Your task to perform on an android device: toggle wifi Image 0: 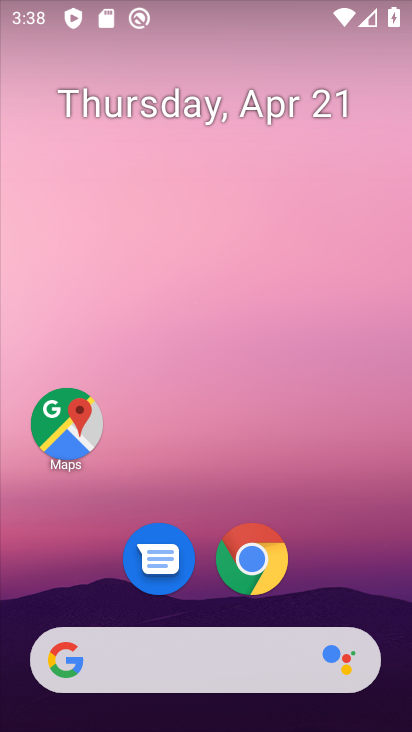
Step 0: drag from (214, 592) to (327, 71)
Your task to perform on an android device: toggle wifi Image 1: 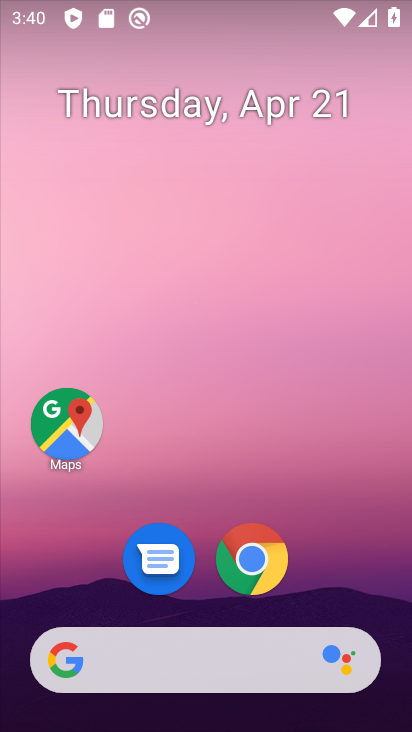
Step 1: drag from (228, 588) to (228, 13)
Your task to perform on an android device: toggle wifi Image 2: 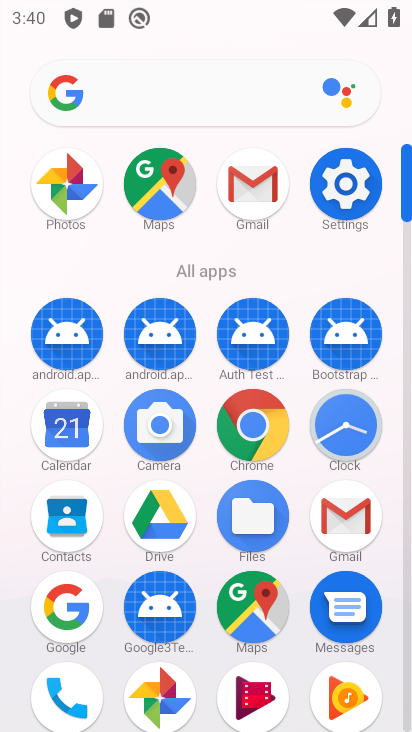
Step 2: click (355, 184)
Your task to perform on an android device: toggle wifi Image 3: 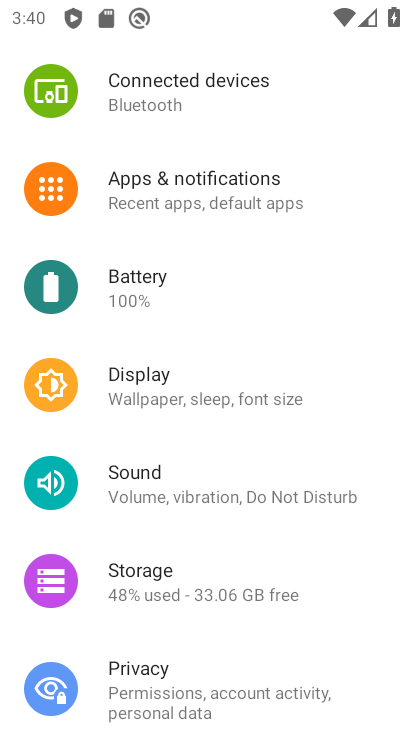
Step 3: drag from (185, 144) to (181, 484)
Your task to perform on an android device: toggle wifi Image 4: 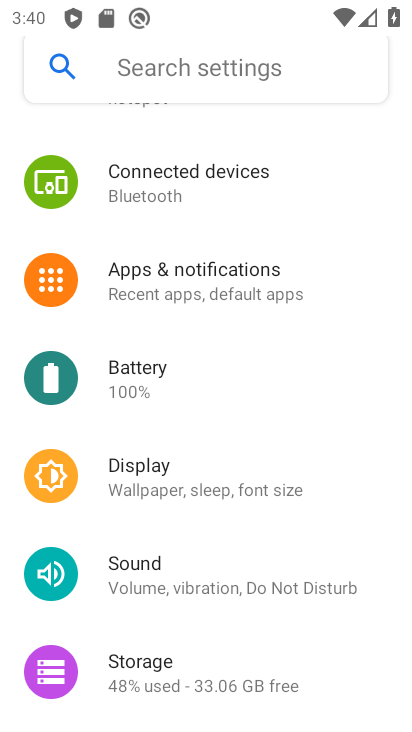
Step 4: drag from (205, 254) to (254, 595)
Your task to perform on an android device: toggle wifi Image 5: 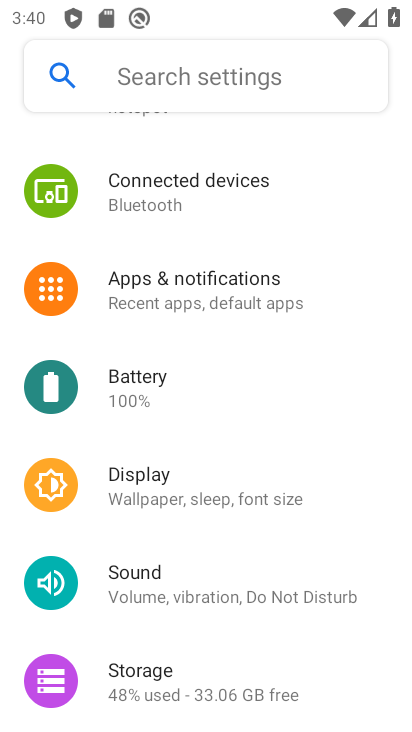
Step 5: drag from (202, 192) to (237, 646)
Your task to perform on an android device: toggle wifi Image 6: 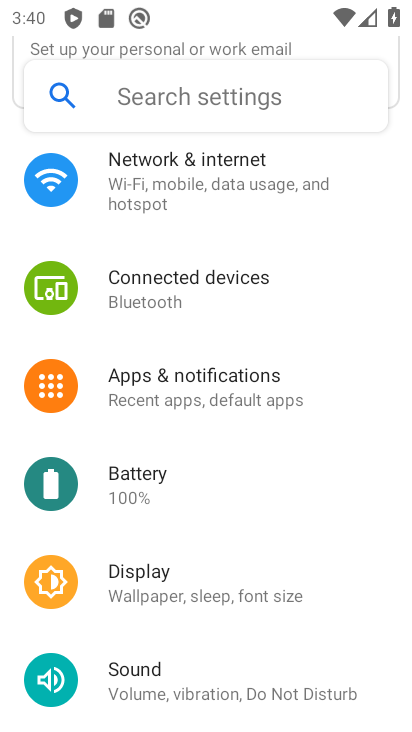
Step 6: click (246, 182)
Your task to perform on an android device: toggle wifi Image 7: 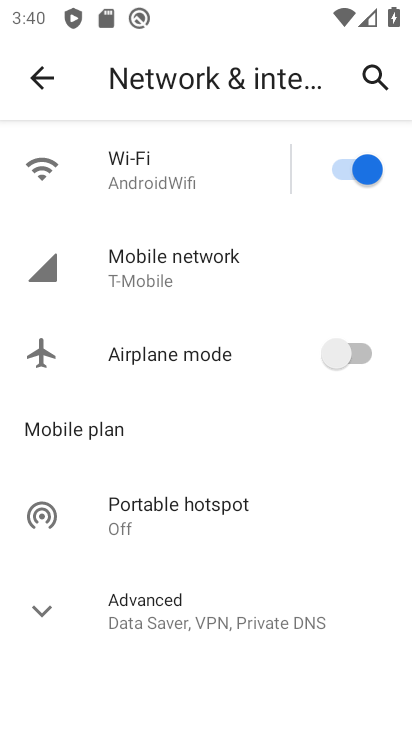
Step 7: click (337, 169)
Your task to perform on an android device: toggle wifi Image 8: 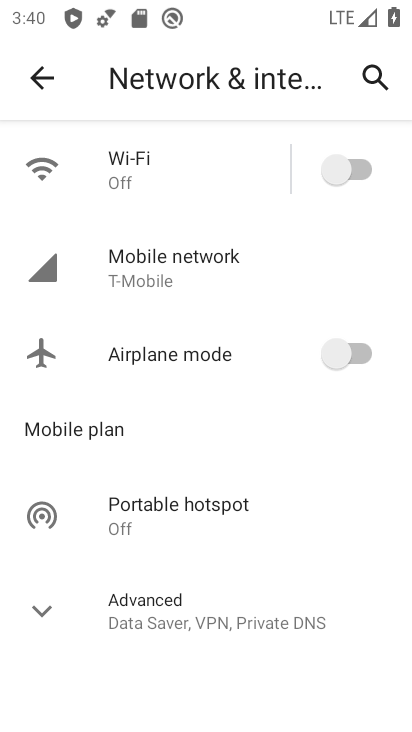
Step 8: task complete